Your task to perform on an android device: turn on improve location accuracy Image 0: 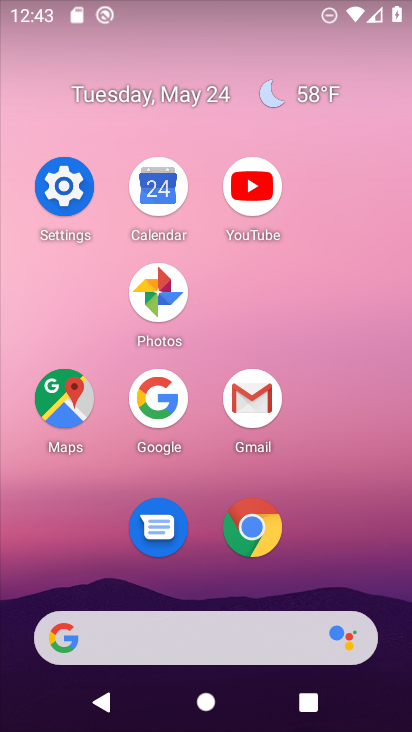
Step 0: click (71, 168)
Your task to perform on an android device: turn on improve location accuracy Image 1: 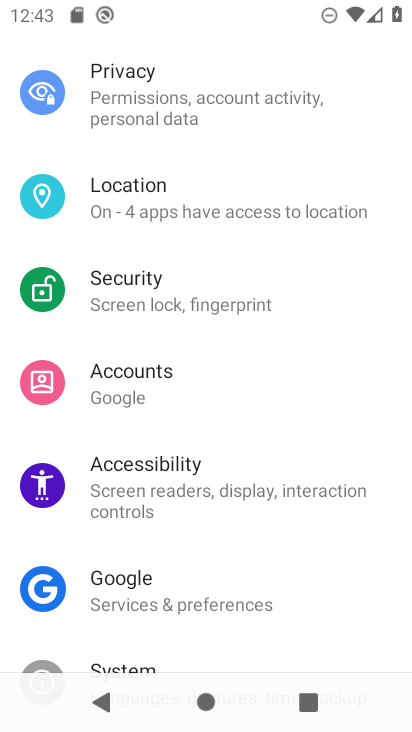
Step 1: drag from (262, 460) to (230, 311)
Your task to perform on an android device: turn on improve location accuracy Image 2: 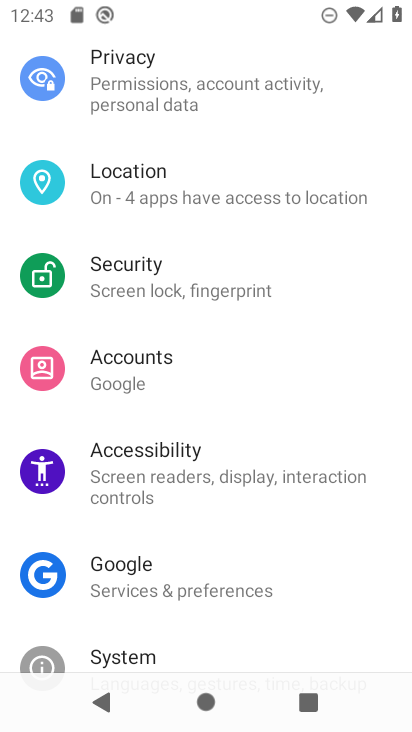
Step 2: click (220, 191)
Your task to perform on an android device: turn on improve location accuracy Image 3: 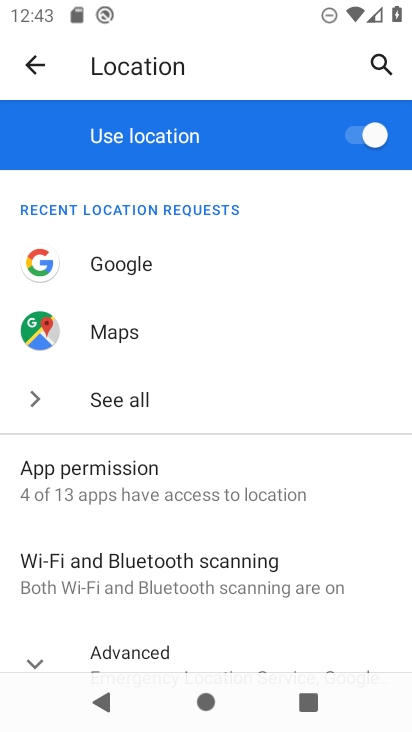
Step 3: drag from (267, 560) to (212, 230)
Your task to perform on an android device: turn on improve location accuracy Image 4: 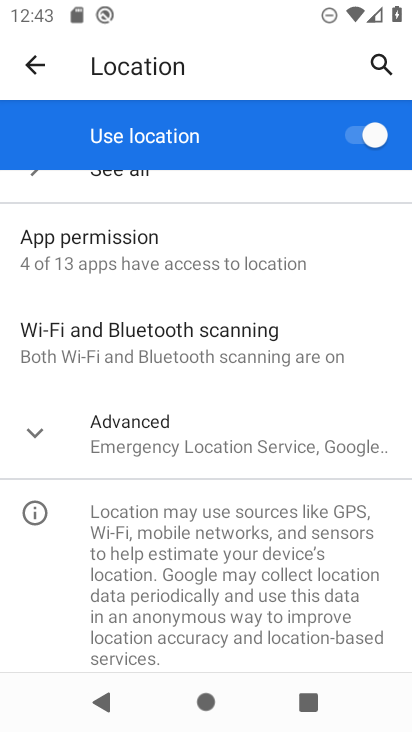
Step 4: click (149, 407)
Your task to perform on an android device: turn on improve location accuracy Image 5: 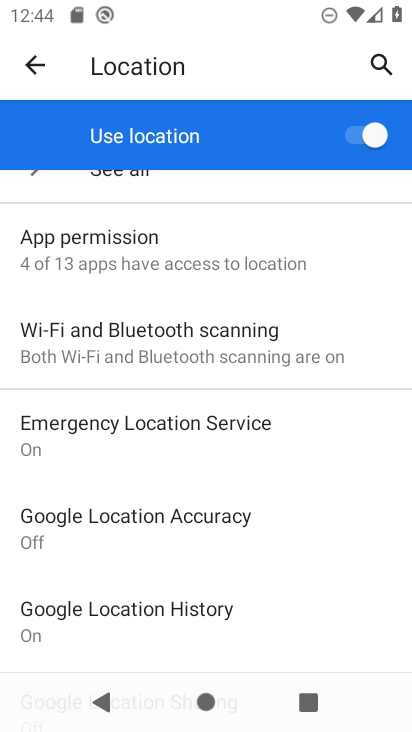
Step 5: click (221, 516)
Your task to perform on an android device: turn on improve location accuracy Image 6: 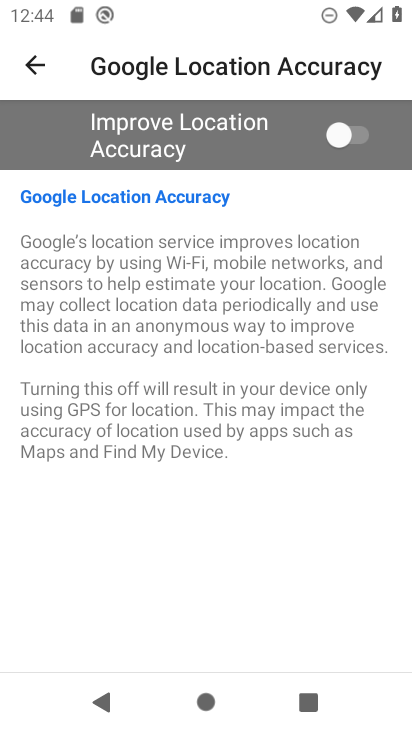
Step 6: click (344, 144)
Your task to perform on an android device: turn on improve location accuracy Image 7: 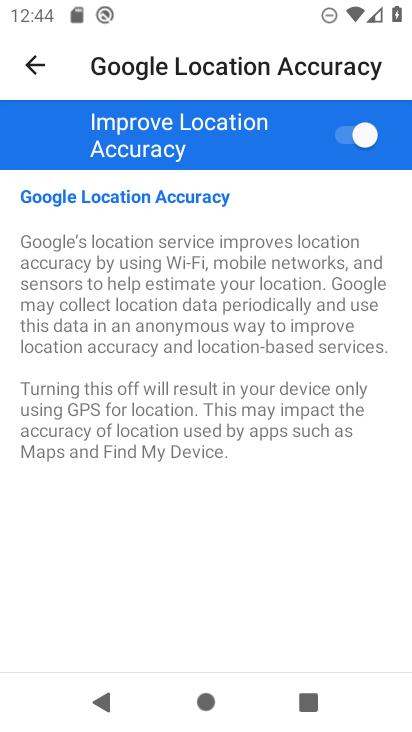
Step 7: task complete